Your task to perform on an android device: Open calendar and show me the second week of next month Image 0: 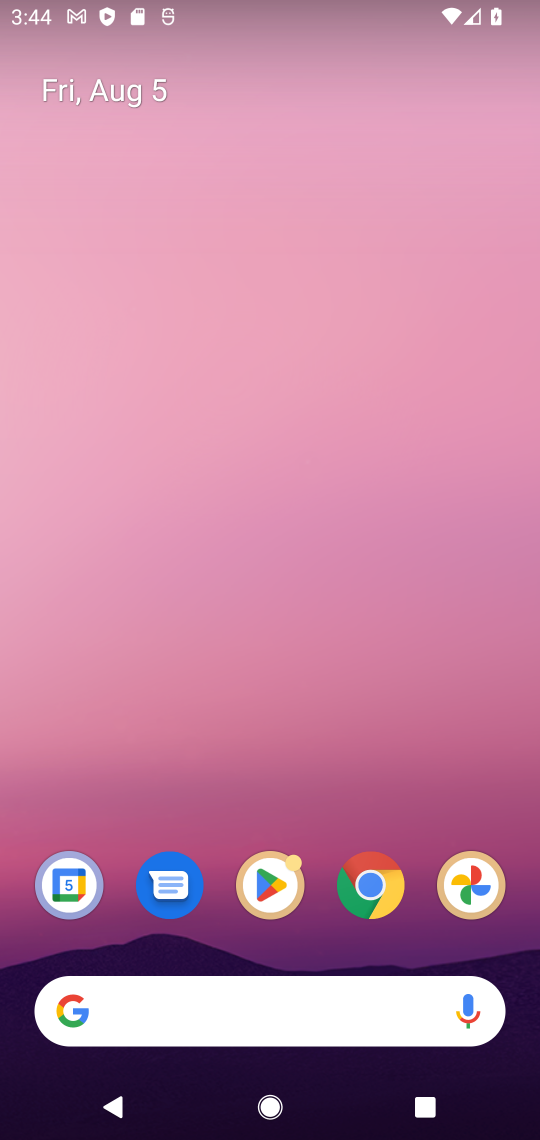
Step 0: drag from (306, 952) to (257, 72)
Your task to perform on an android device: Open calendar and show me the second week of next month Image 1: 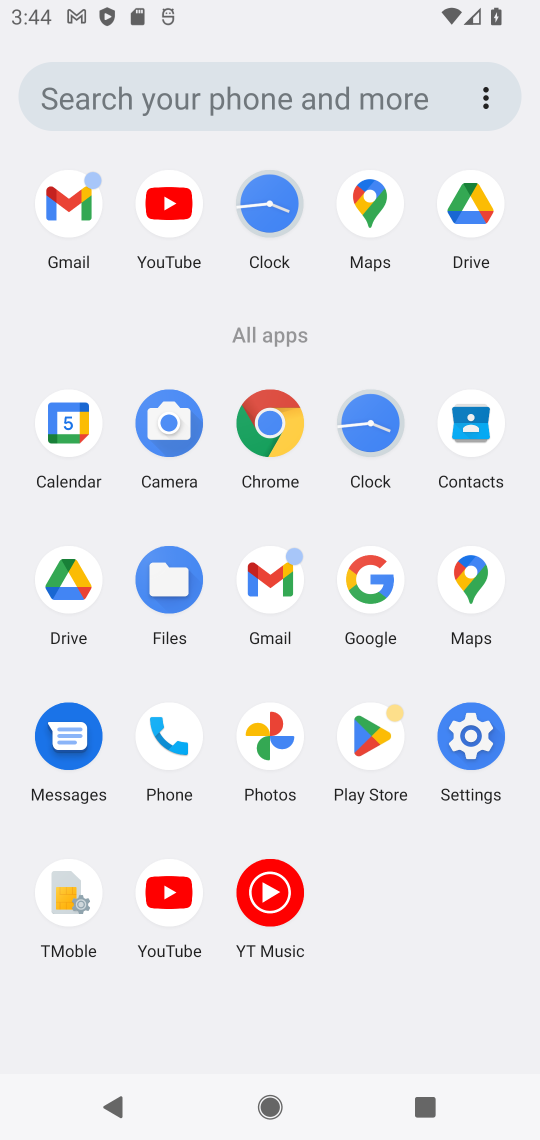
Step 1: click (51, 435)
Your task to perform on an android device: Open calendar and show me the second week of next month Image 2: 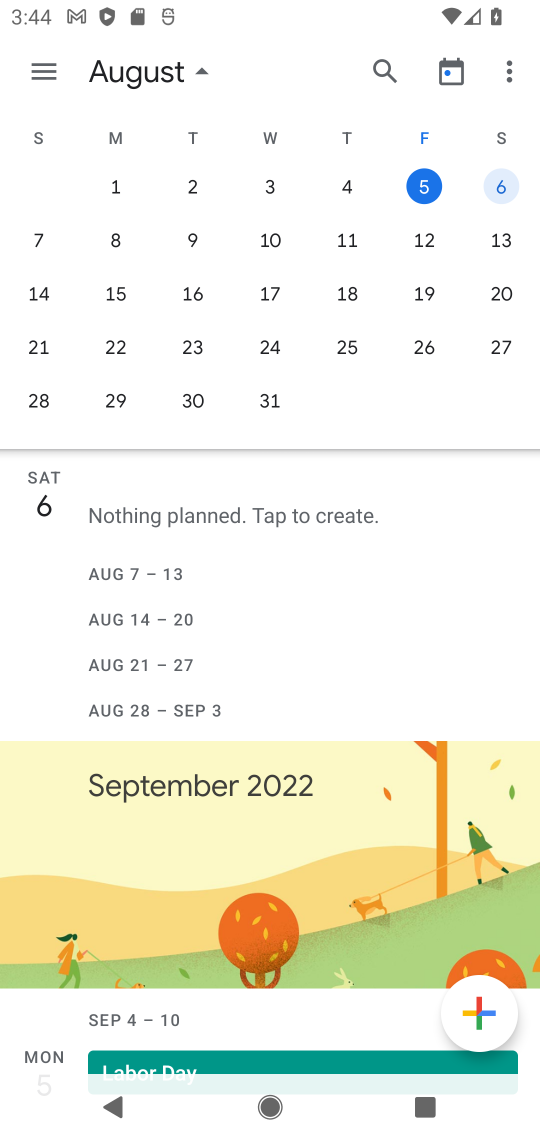
Step 2: drag from (427, 321) to (27, 297)
Your task to perform on an android device: Open calendar and show me the second week of next month Image 3: 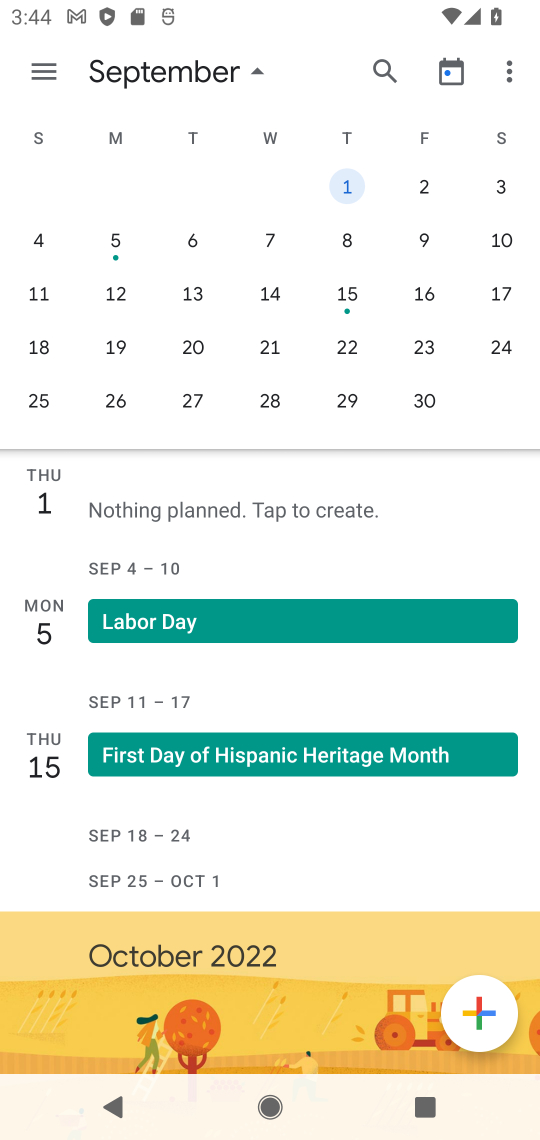
Step 3: click (114, 291)
Your task to perform on an android device: Open calendar and show me the second week of next month Image 4: 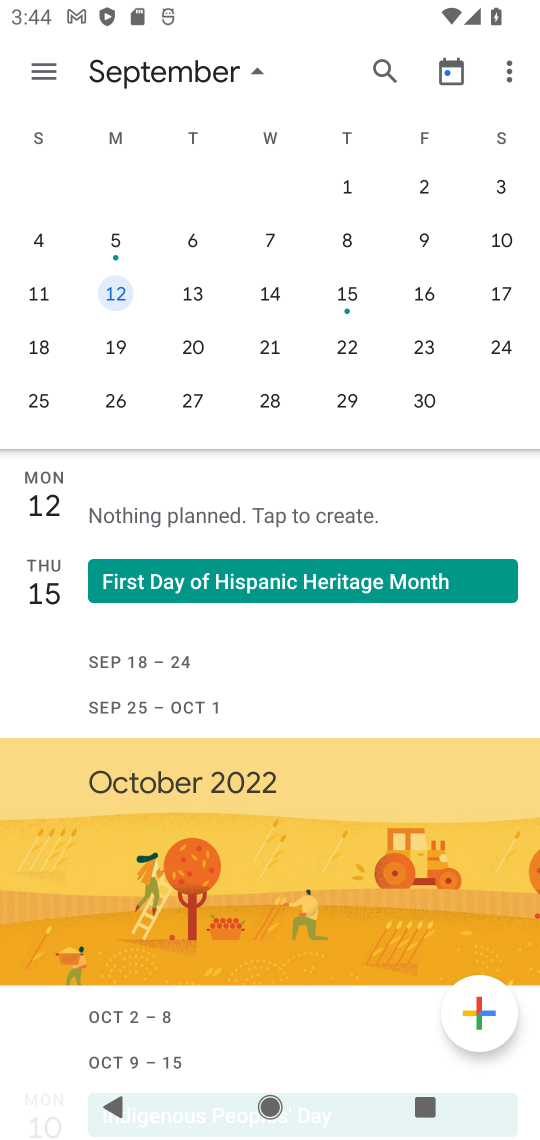
Step 4: click (38, 74)
Your task to perform on an android device: Open calendar and show me the second week of next month Image 5: 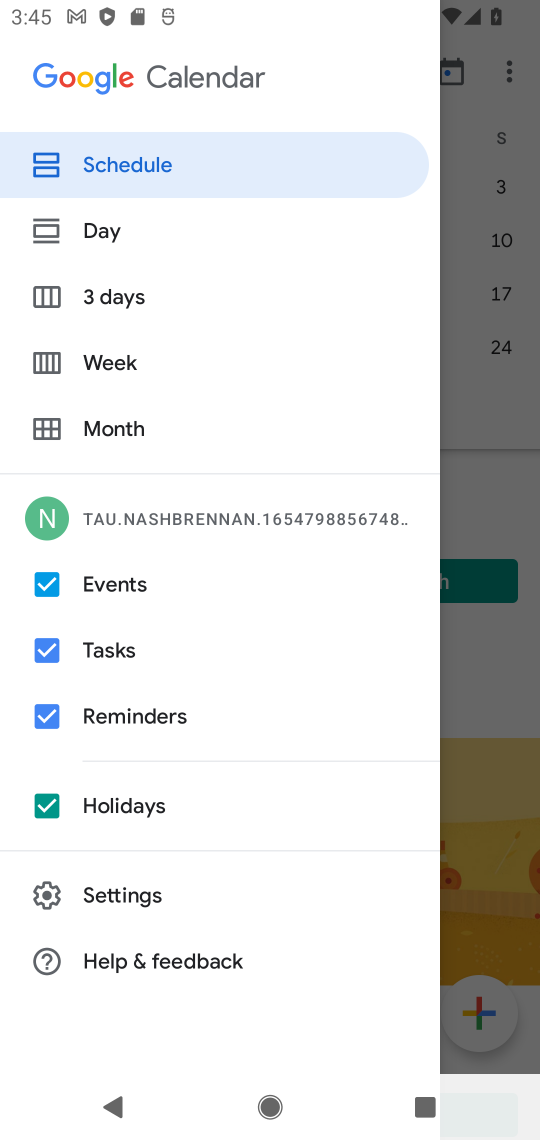
Step 5: click (106, 354)
Your task to perform on an android device: Open calendar and show me the second week of next month Image 6: 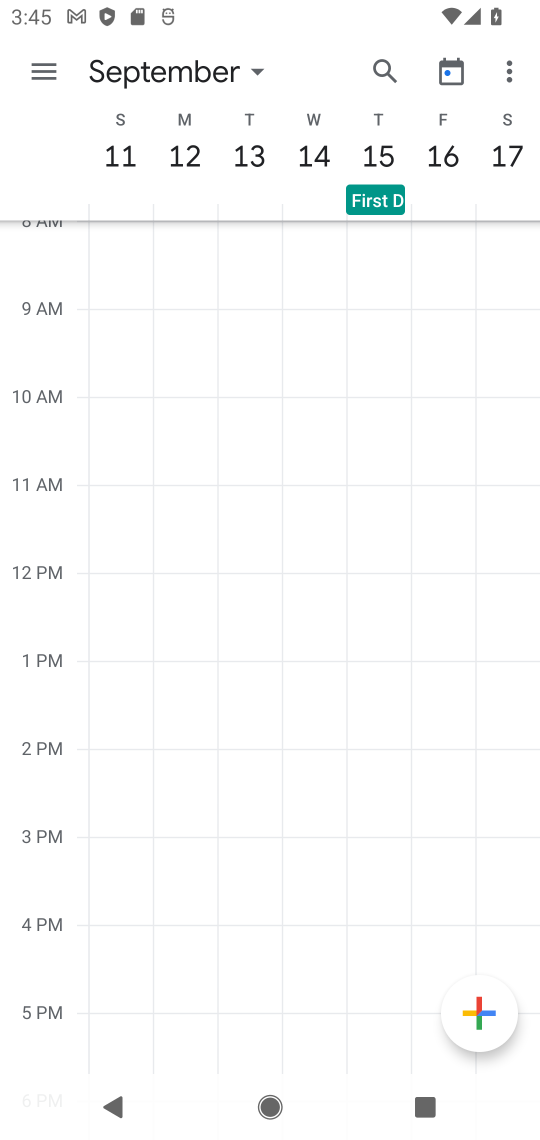
Step 6: task complete